Your task to perform on an android device: Open calendar and show me the third week of next month Image 0: 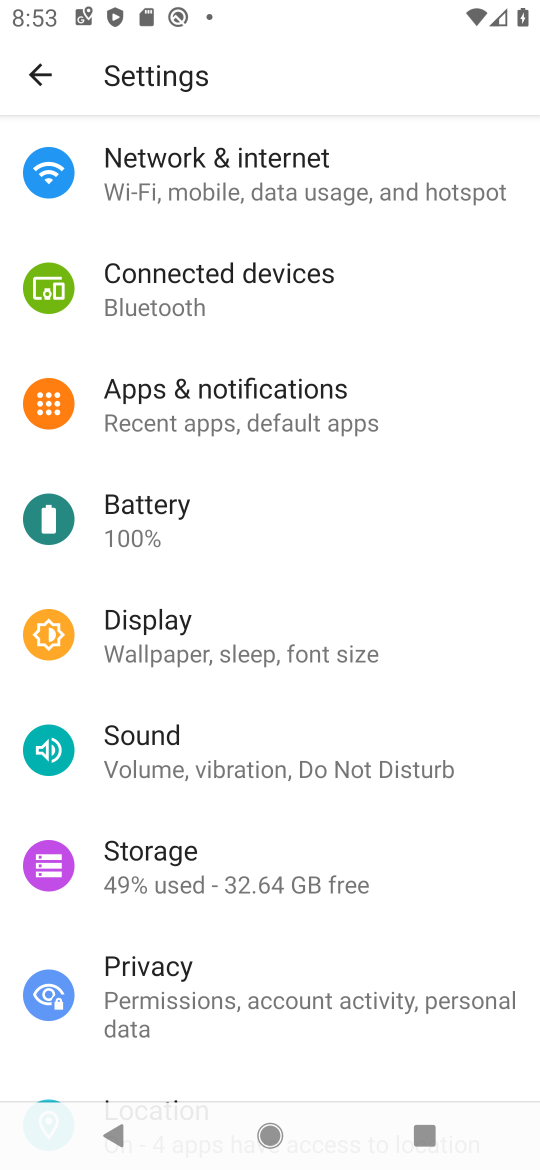
Step 0: press home button
Your task to perform on an android device: Open calendar and show me the third week of next month Image 1: 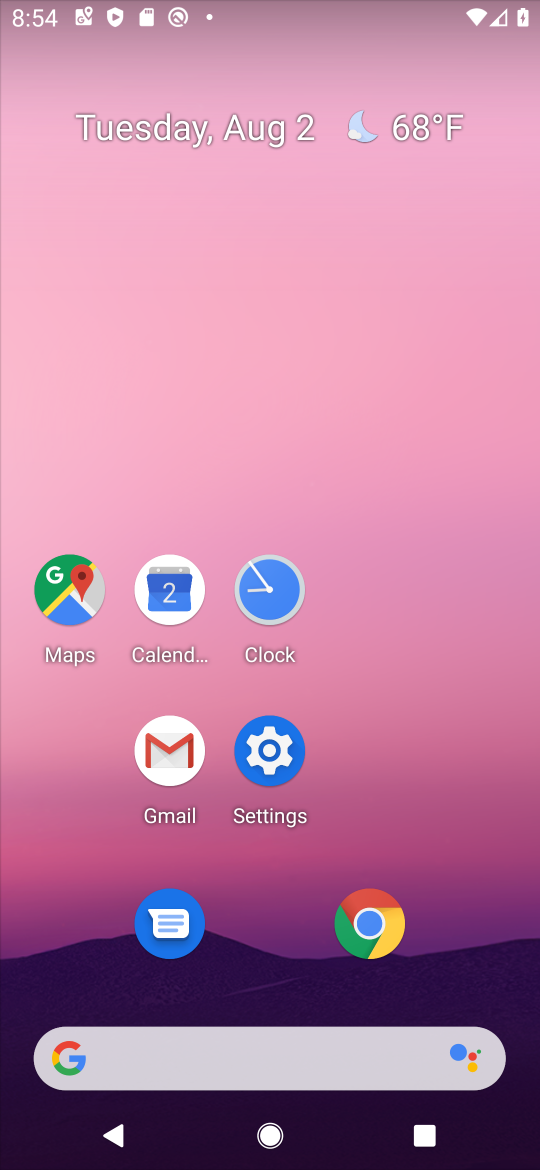
Step 1: click (165, 598)
Your task to perform on an android device: Open calendar and show me the third week of next month Image 2: 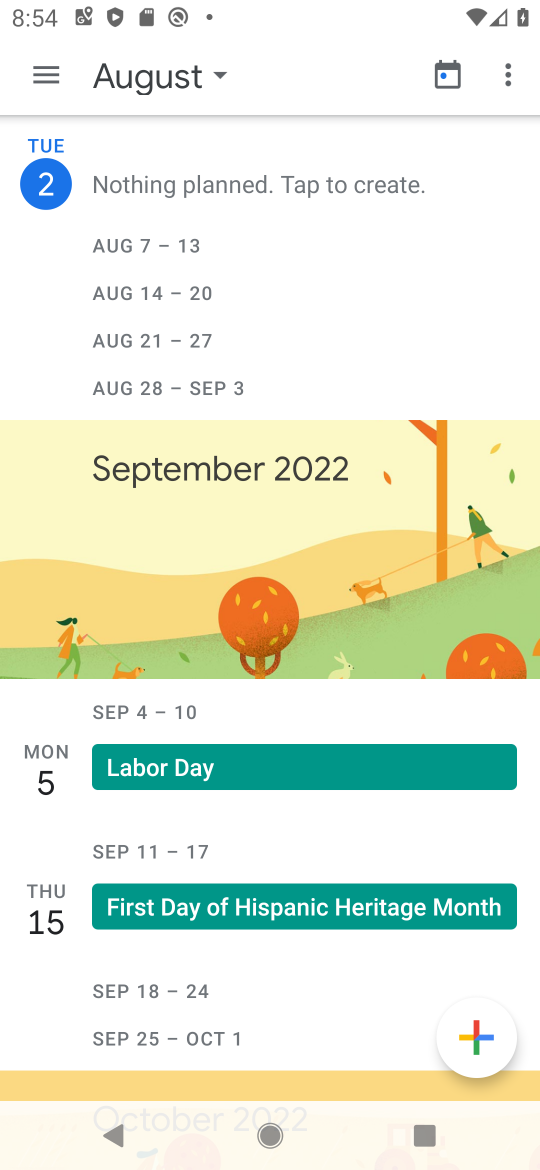
Step 2: click (224, 78)
Your task to perform on an android device: Open calendar and show me the third week of next month Image 3: 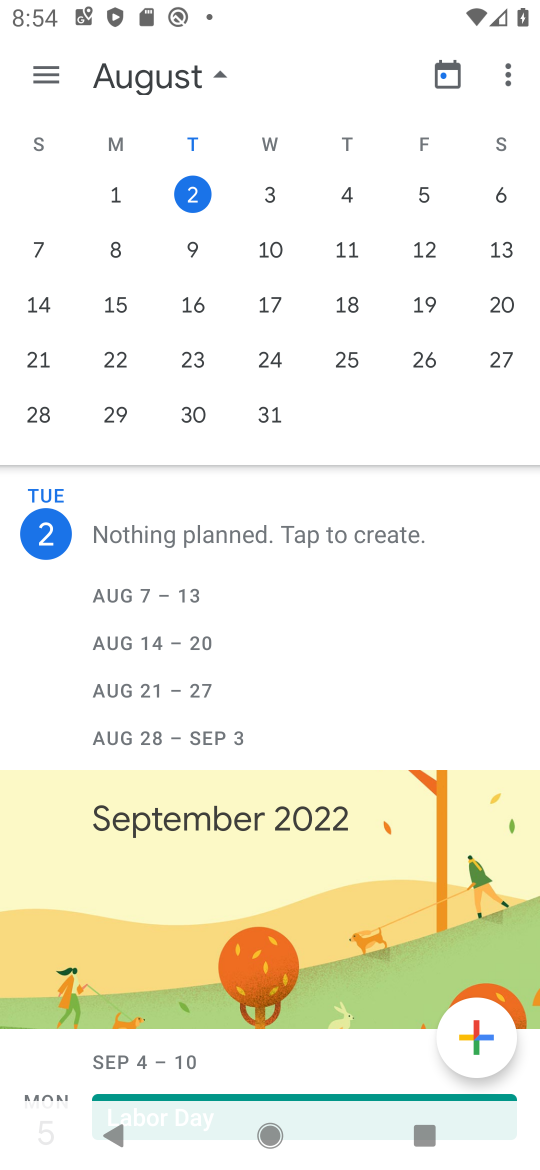
Step 3: drag from (517, 300) to (67, 274)
Your task to perform on an android device: Open calendar and show me the third week of next month Image 4: 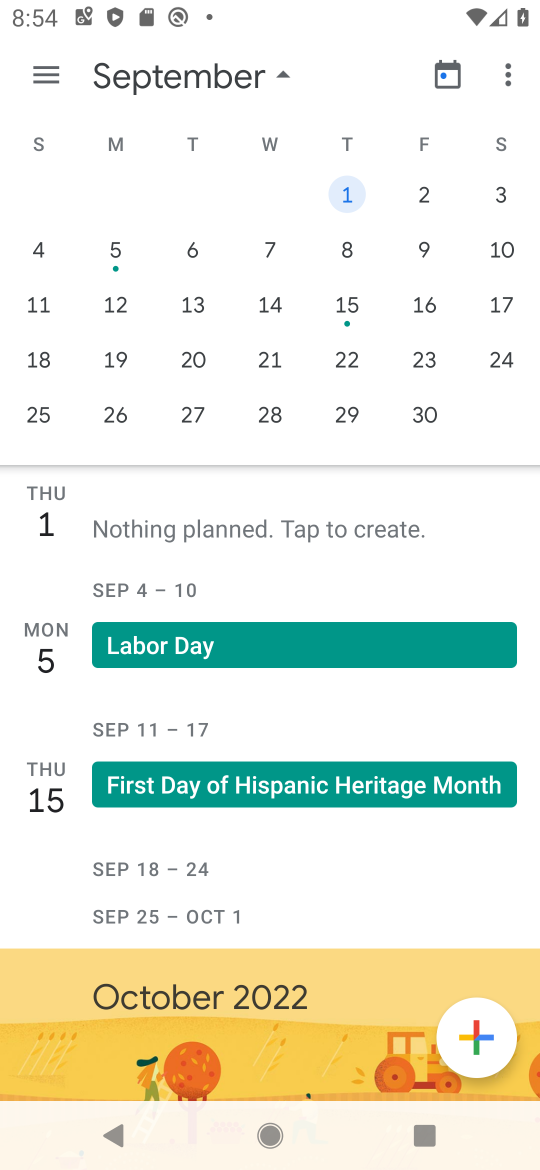
Step 4: click (424, 295)
Your task to perform on an android device: Open calendar and show me the third week of next month Image 5: 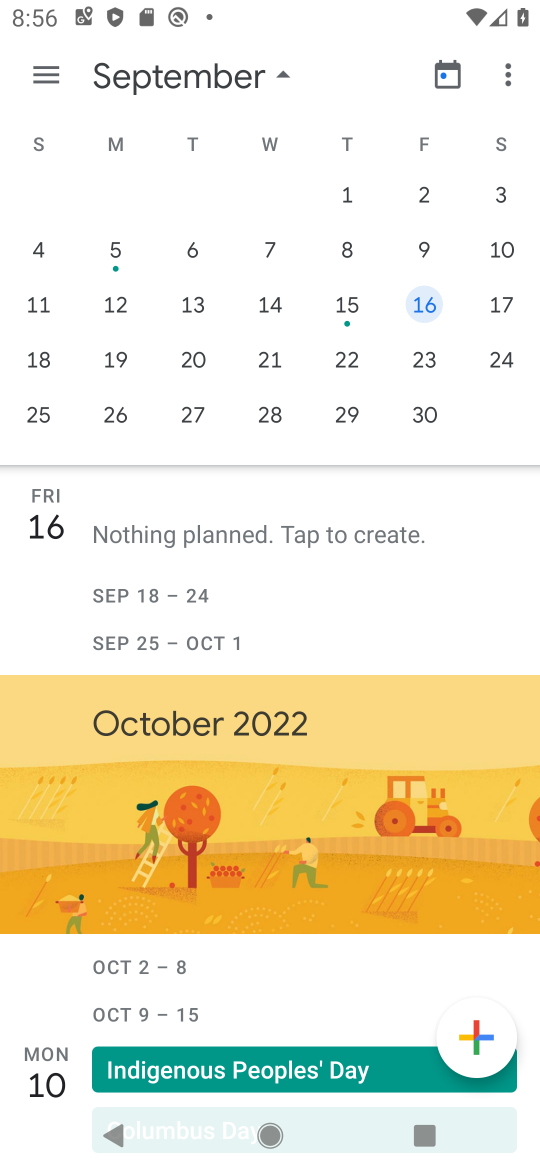
Step 5: click (37, 73)
Your task to perform on an android device: Open calendar and show me the third week of next month Image 6: 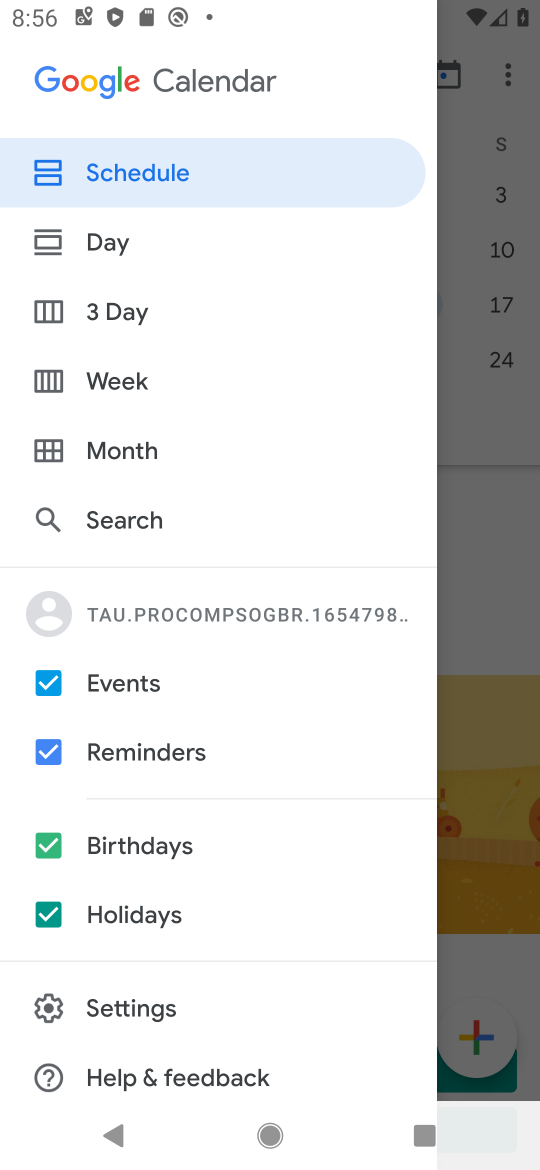
Step 6: click (116, 378)
Your task to perform on an android device: Open calendar and show me the third week of next month Image 7: 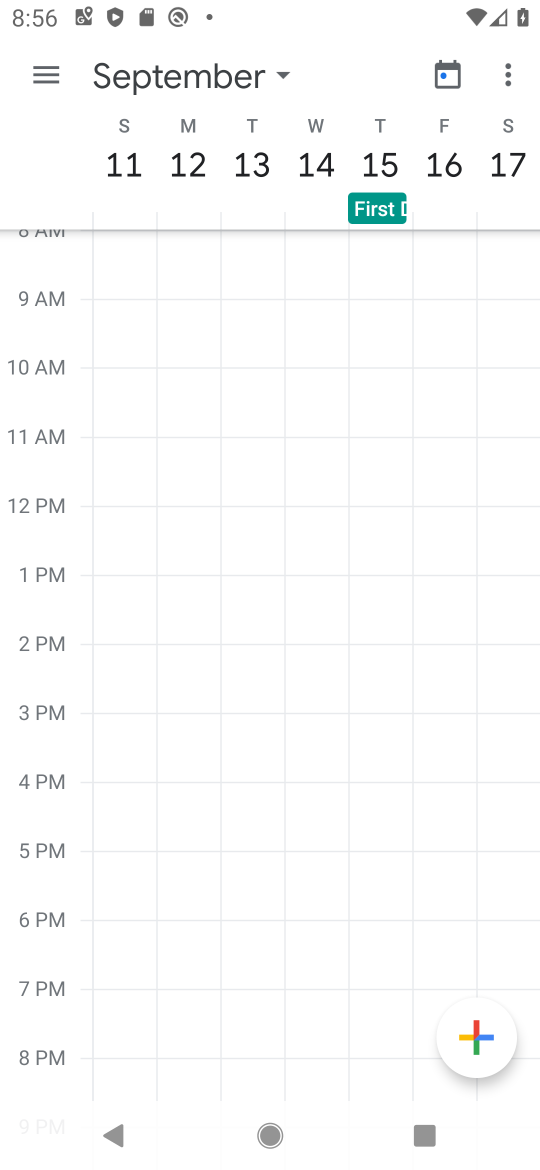
Step 7: task complete